Your task to perform on an android device: Search for "usb-b" on walmart.com, select the first entry, add it to the cart, then select checkout. Image 0: 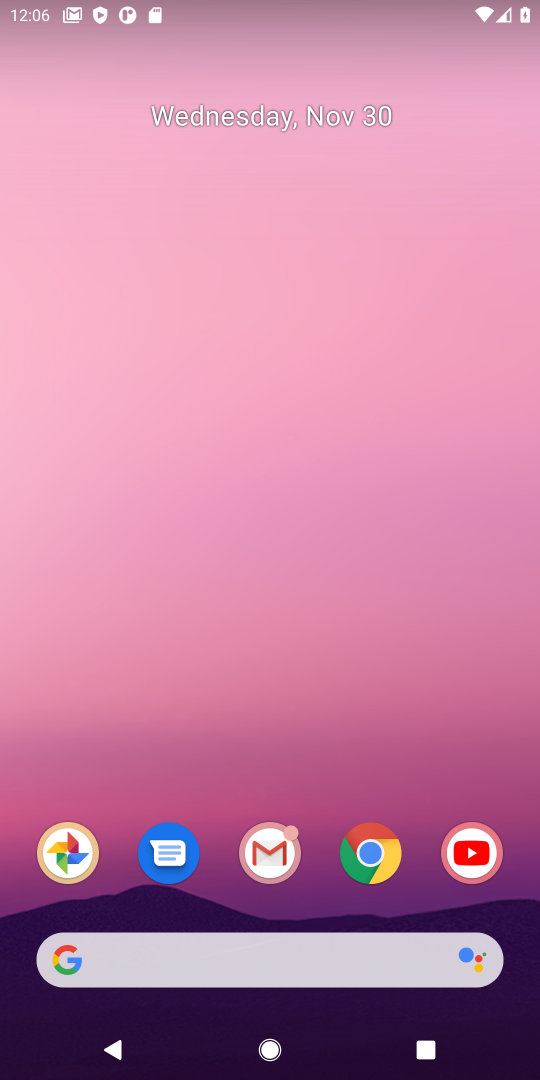
Step 0: click (377, 855)
Your task to perform on an android device: Search for "usb-b" on walmart.com, select the first entry, add it to the cart, then select checkout. Image 1: 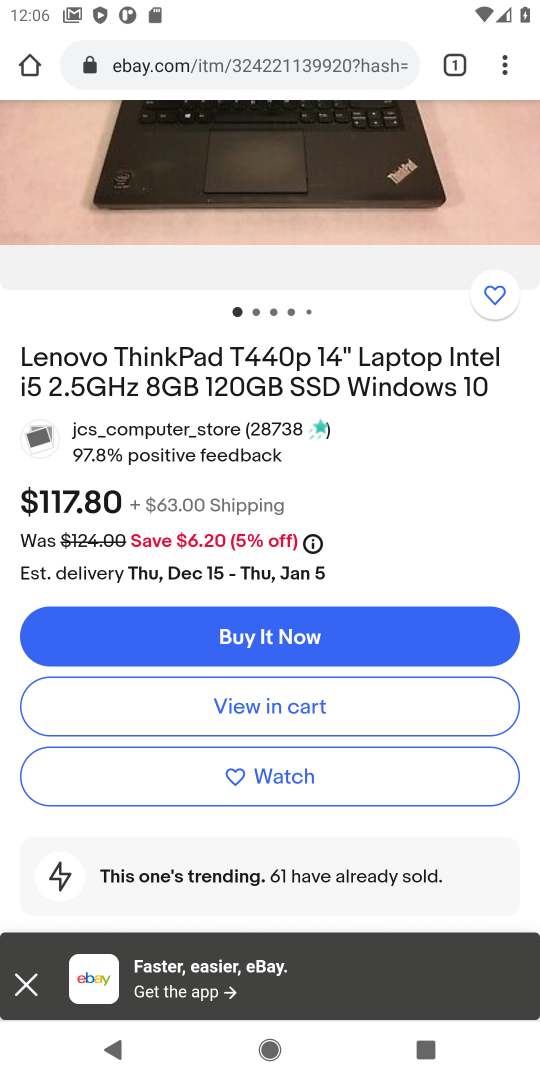
Step 1: click (218, 60)
Your task to perform on an android device: Search for "usb-b" on walmart.com, select the first entry, add it to the cart, then select checkout. Image 2: 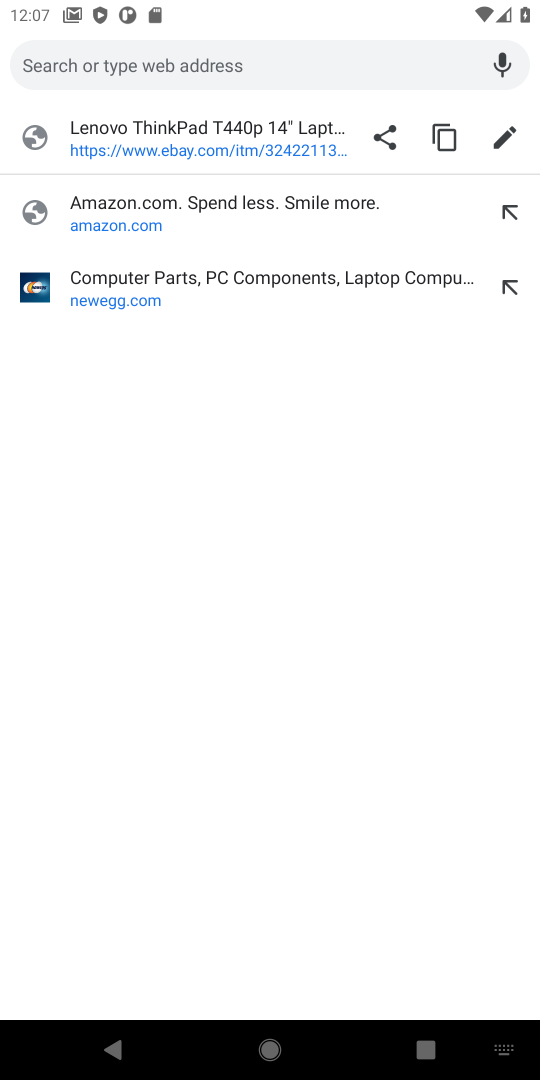
Step 2: type "walmart.com"
Your task to perform on an android device: Search for "usb-b" on walmart.com, select the first entry, add it to the cart, then select checkout. Image 3: 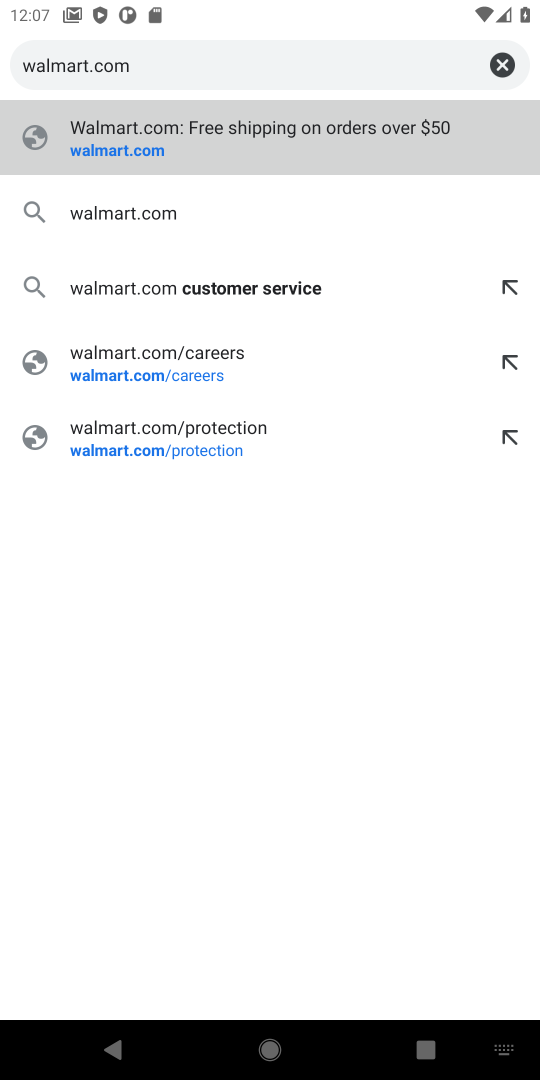
Step 3: click (123, 135)
Your task to perform on an android device: Search for "usb-b" on walmart.com, select the first entry, add it to the cart, then select checkout. Image 4: 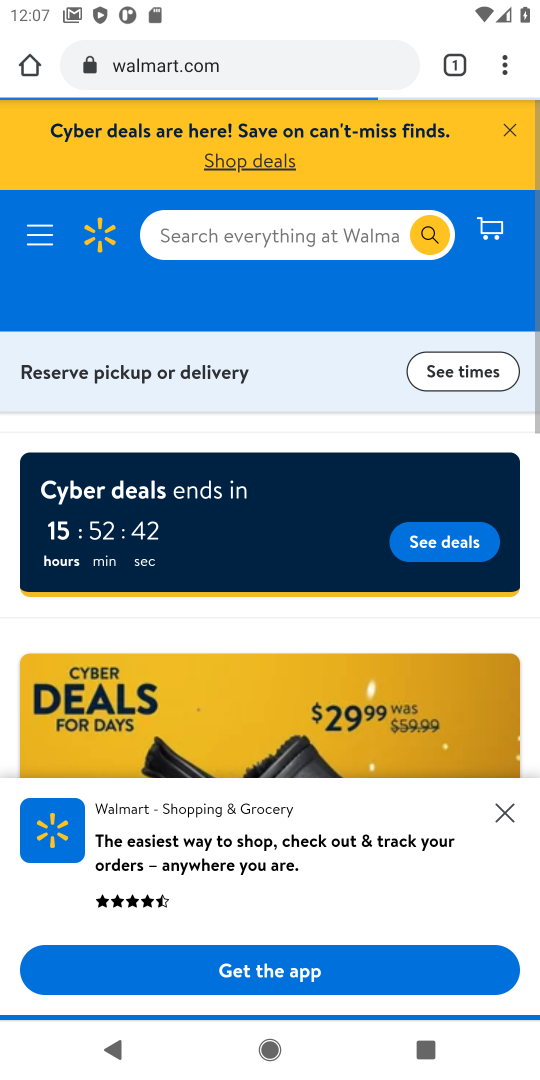
Step 4: click (179, 230)
Your task to perform on an android device: Search for "usb-b" on walmart.com, select the first entry, add it to the cart, then select checkout. Image 5: 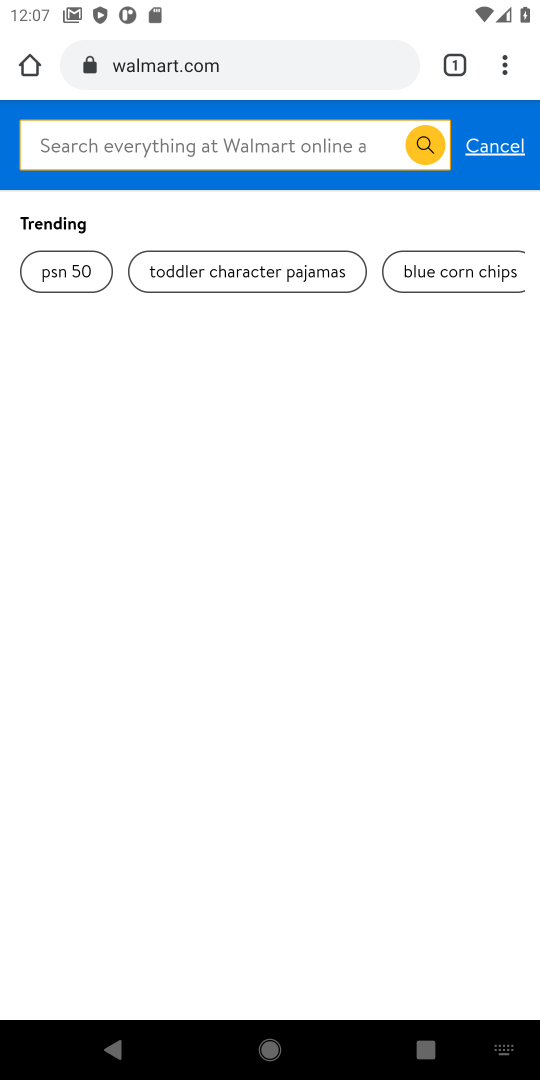
Step 5: type "usb-b"
Your task to perform on an android device: Search for "usb-b" on walmart.com, select the first entry, add it to the cart, then select checkout. Image 6: 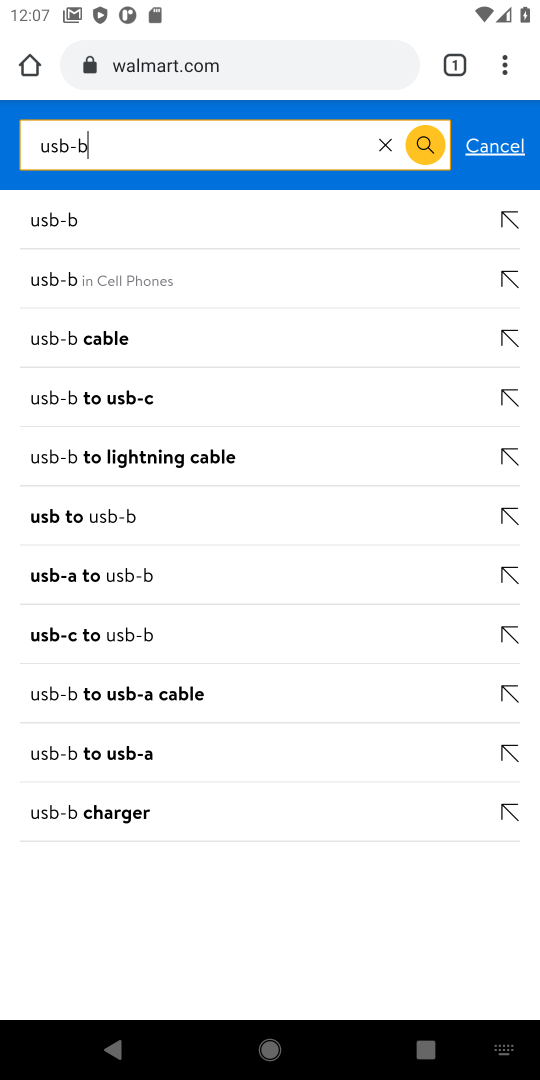
Step 6: click (43, 234)
Your task to perform on an android device: Search for "usb-b" on walmart.com, select the first entry, add it to the cart, then select checkout. Image 7: 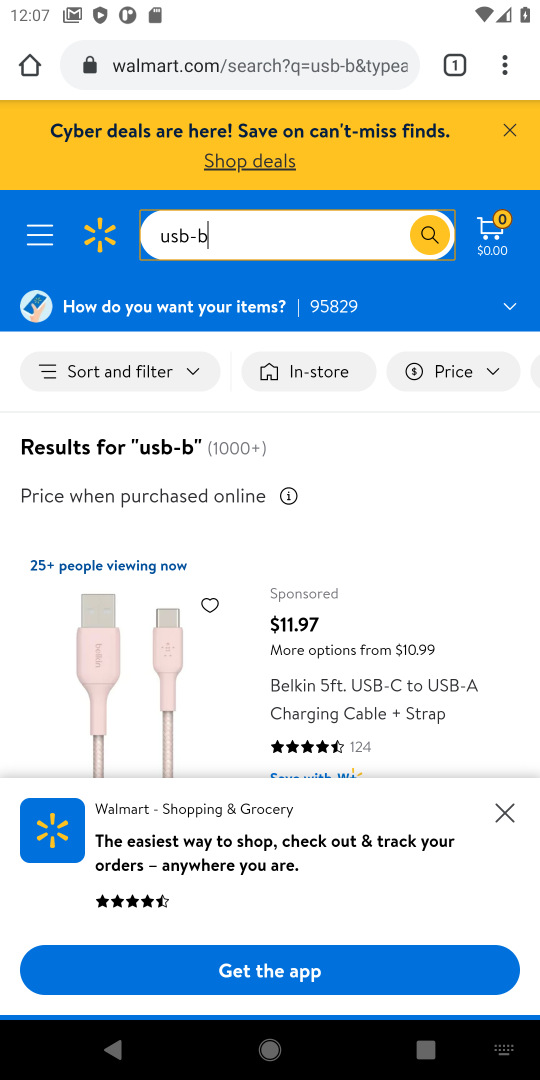
Step 7: drag from (396, 584) to (378, 333)
Your task to perform on an android device: Search for "usb-b" on walmart.com, select the first entry, add it to the cart, then select checkout. Image 8: 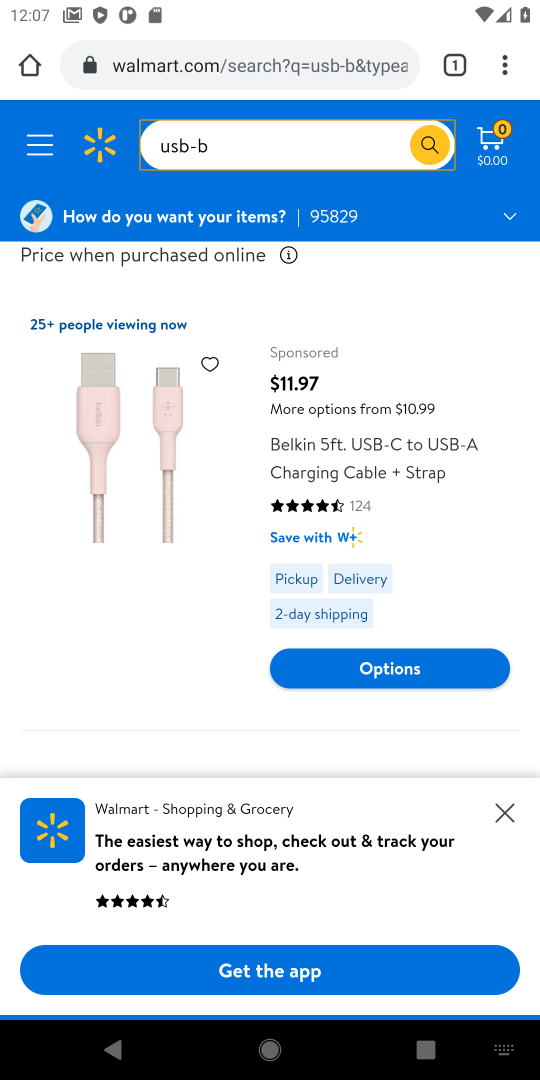
Step 8: click (325, 475)
Your task to perform on an android device: Search for "usb-b" on walmart.com, select the first entry, add it to the cart, then select checkout. Image 9: 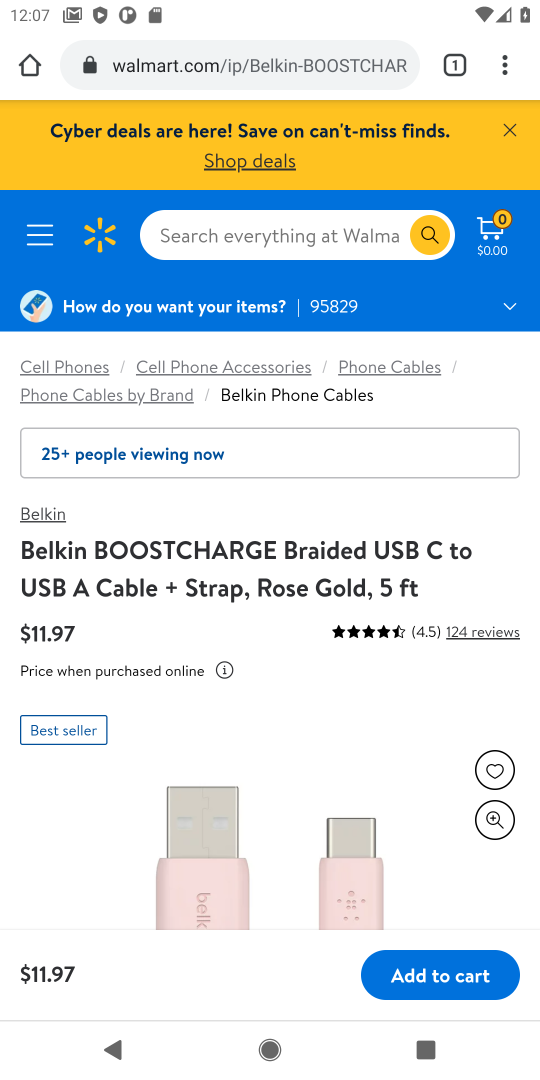
Step 9: click (427, 975)
Your task to perform on an android device: Search for "usb-b" on walmart.com, select the first entry, add it to the cart, then select checkout. Image 10: 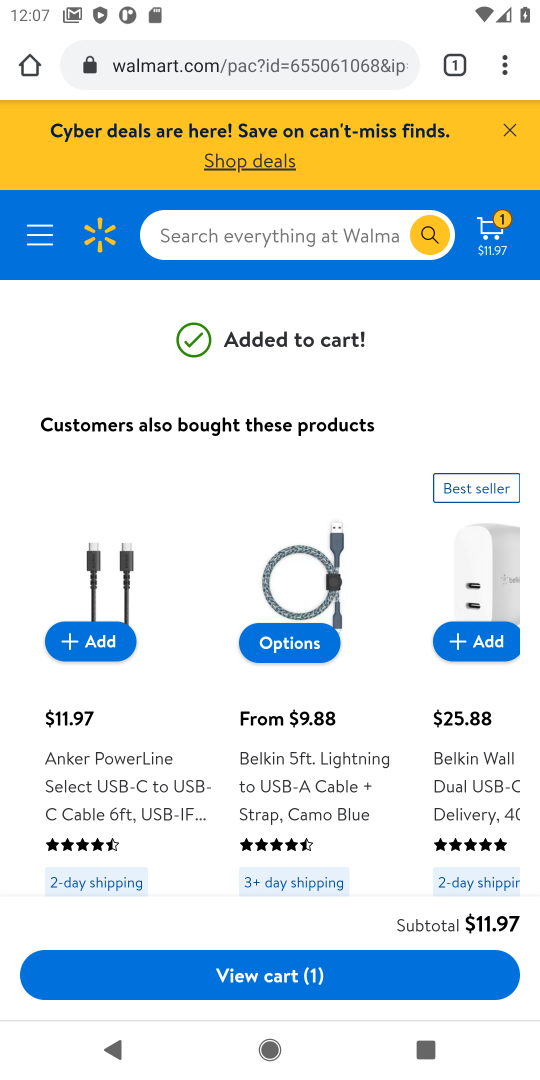
Step 10: click (255, 977)
Your task to perform on an android device: Search for "usb-b" on walmart.com, select the first entry, add it to the cart, then select checkout. Image 11: 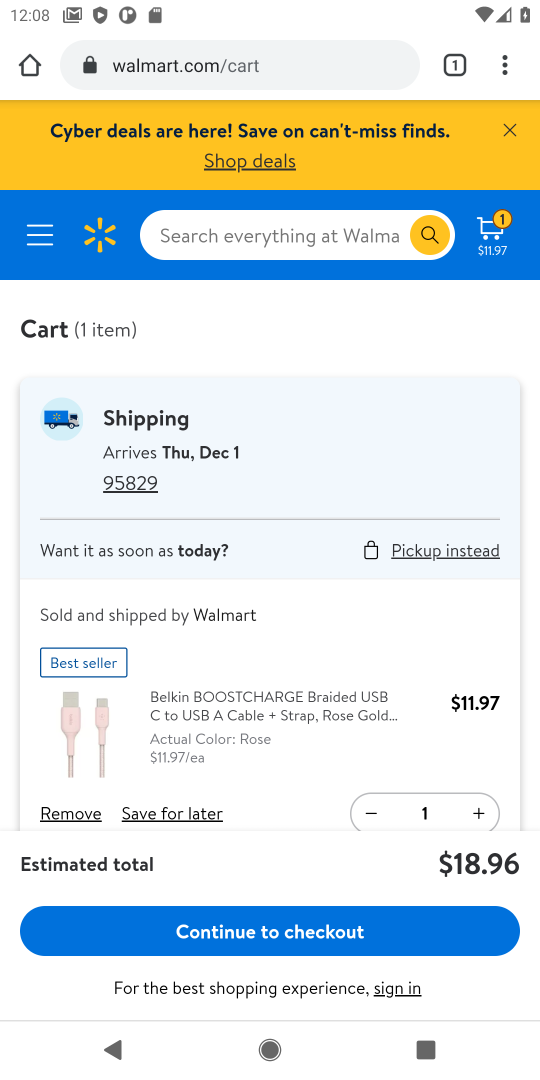
Step 11: click (271, 931)
Your task to perform on an android device: Search for "usb-b" on walmart.com, select the first entry, add it to the cart, then select checkout. Image 12: 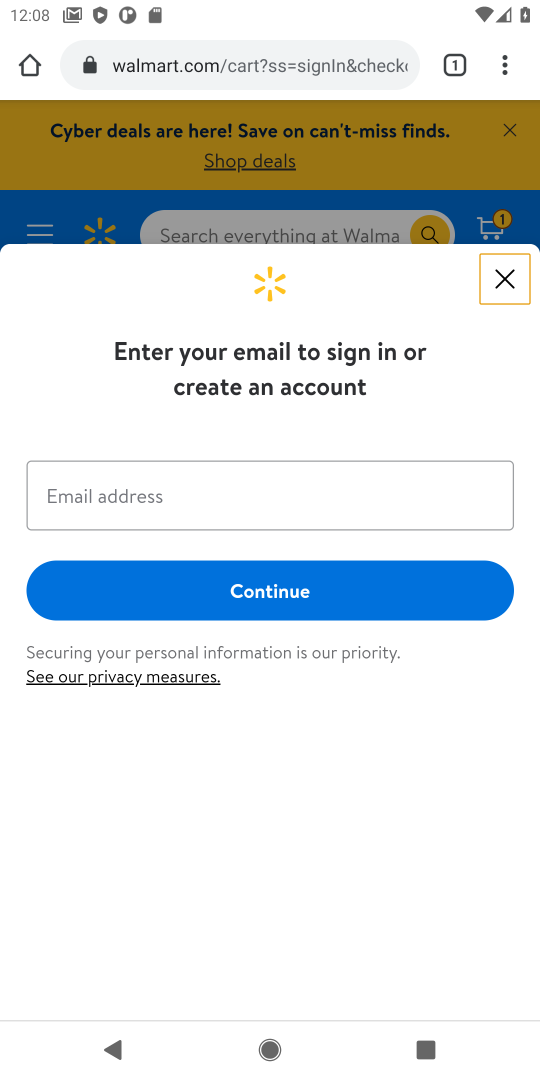
Step 12: task complete